Your task to perform on an android device: toggle translation in the chrome app Image 0: 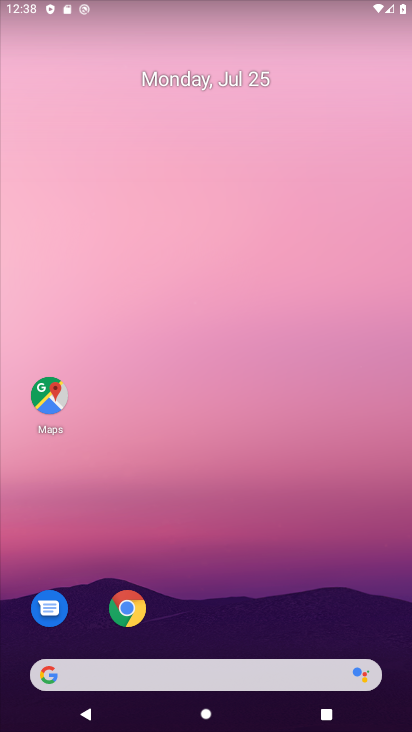
Step 0: drag from (199, 639) to (144, 725)
Your task to perform on an android device: toggle translation in the chrome app Image 1: 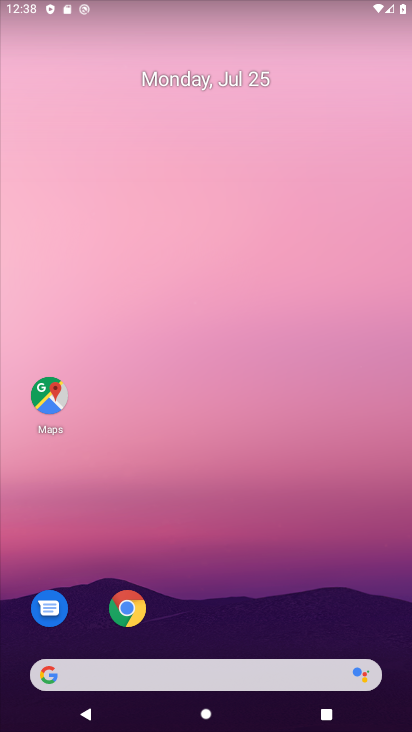
Step 1: drag from (209, 635) to (264, 0)
Your task to perform on an android device: toggle translation in the chrome app Image 2: 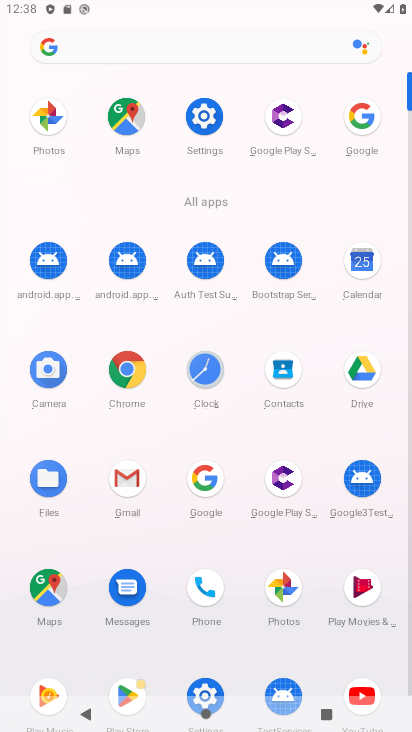
Step 2: click (122, 375)
Your task to perform on an android device: toggle translation in the chrome app Image 3: 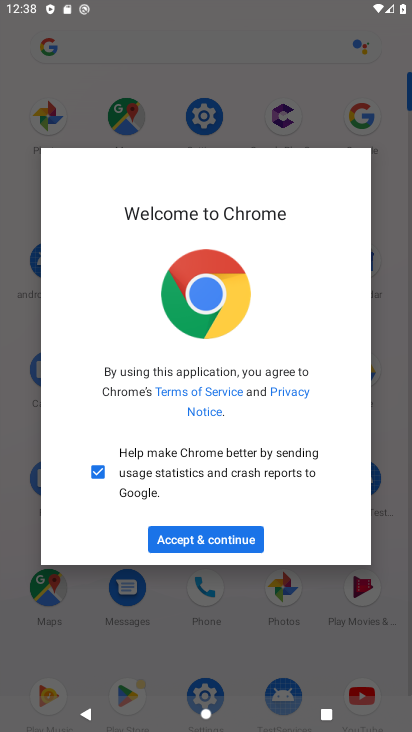
Step 3: click (203, 528)
Your task to perform on an android device: toggle translation in the chrome app Image 4: 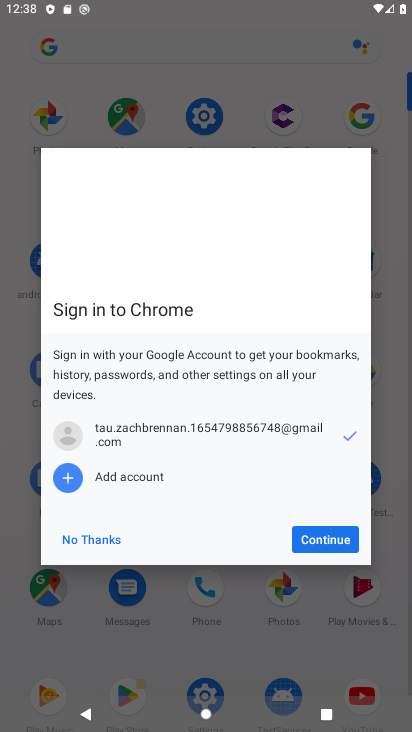
Step 4: click (337, 542)
Your task to perform on an android device: toggle translation in the chrome app Image 5: 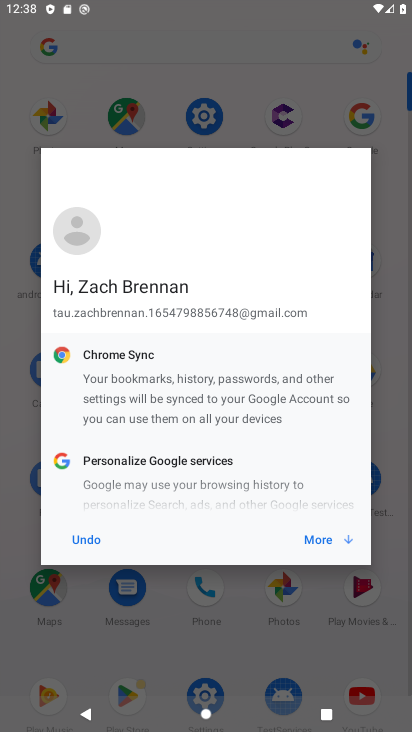
Step 5: click (343, 530)
Your task to perform on an android device: toggle translation in the chrome app Image 6: 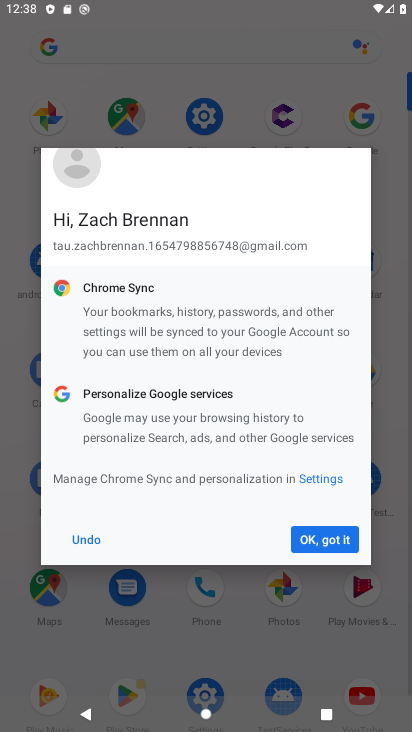
Step 6: click (343, 530)
Your task to perform on an android device: toggle translation in the chrome app Image 7: 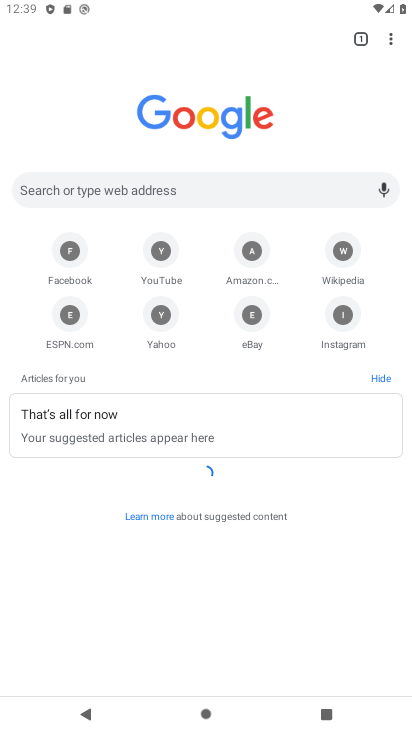
Step 7: drag from (390, 33) to (265, 328)
Your task to perform on an android device: toggle translation in the chrome app Image 8: 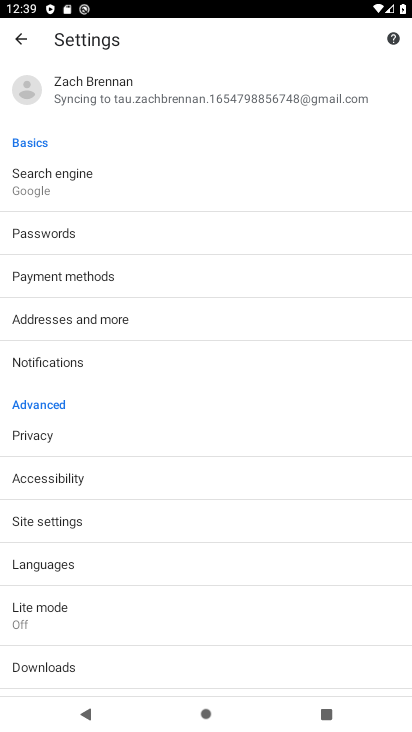
Step 8: click (45, 568)
Your task to perform on an android device: toggle translation in the chrome app Image 9: 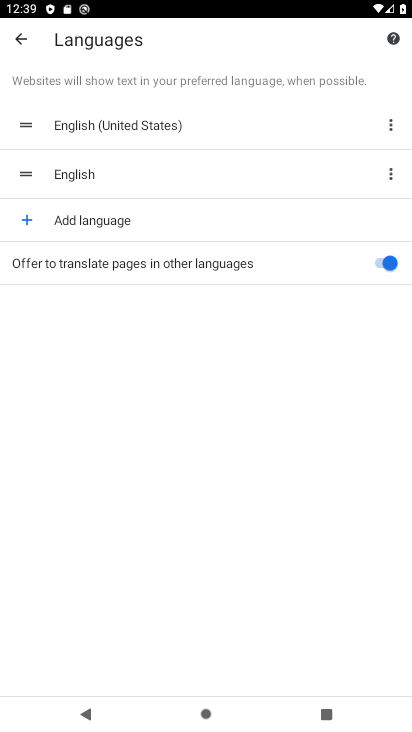
Step 9: click (389, 266)
Your task to perform on an android device: toggle translation in the chrome app Image 10: 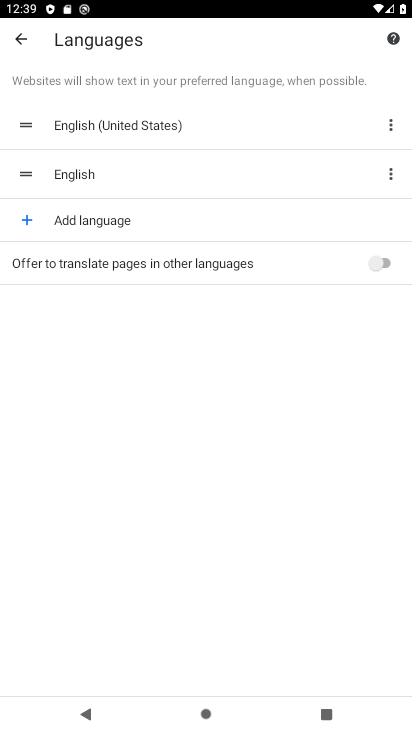
Step 10: task complete